Your task to perform on an android device: Open calendar and show me the third week of next month Image 0: 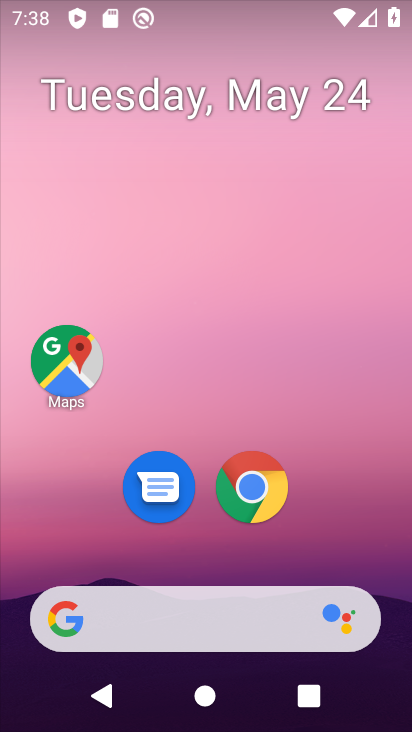
Step 0: drag from (308, 537) to (285, 86)
Your task to perform on an android device: Open calendar and show me the third week of next month Image 1: 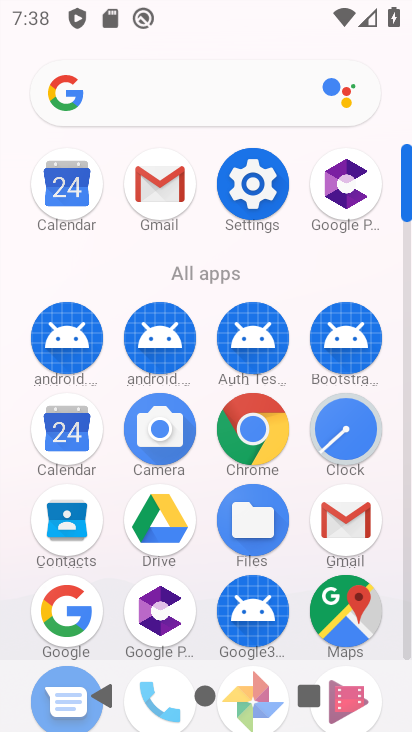
Step 1: click (64, 432)
Your task to perform on an android device: Open calendar and show me the third week of next month Image 2: 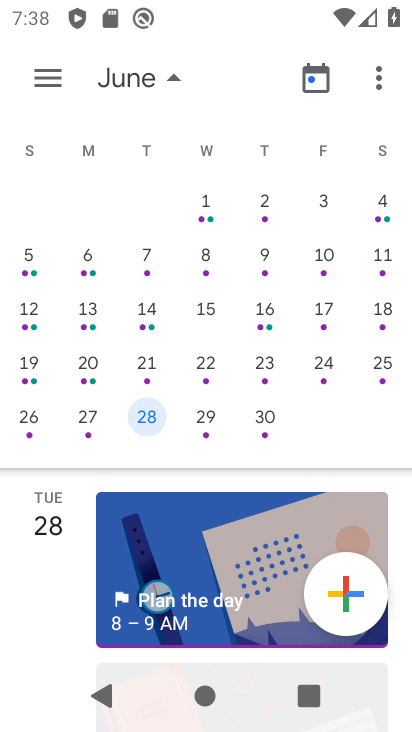
Step 2: click (250, 362)
Your task to perform on an android device: Open calendar and show me the third week of next month Image 3: 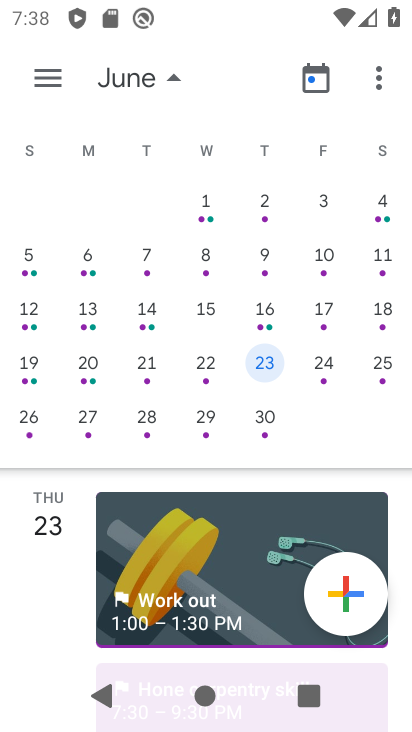
Step 3: task complete